Your task to perform on an android device: Open Chrome and go to settings Image 0: 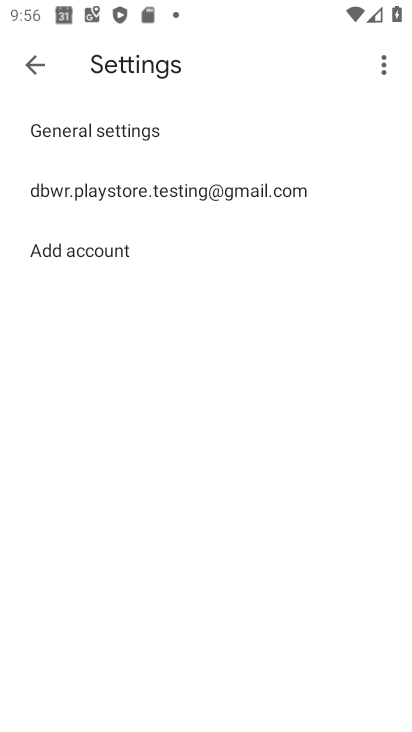
Step 0: press home button
Your task to perform on an android device: Open Chrome and go to settings Image 1: 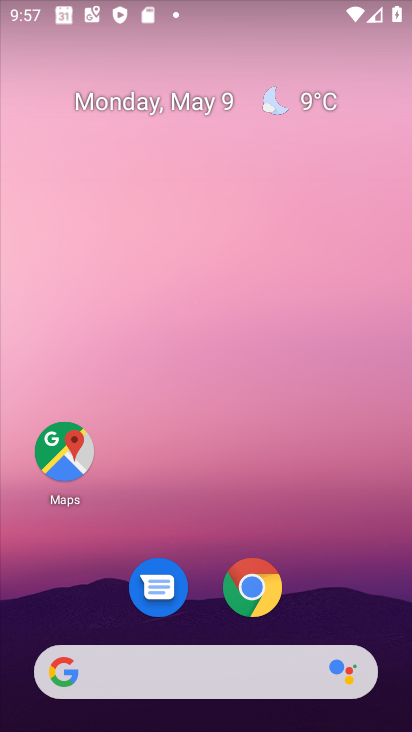
Step 1: drag from (340, 487) to (276, 29)
Your task to perform on an android device: Open Chrome and go to settings Image 2: 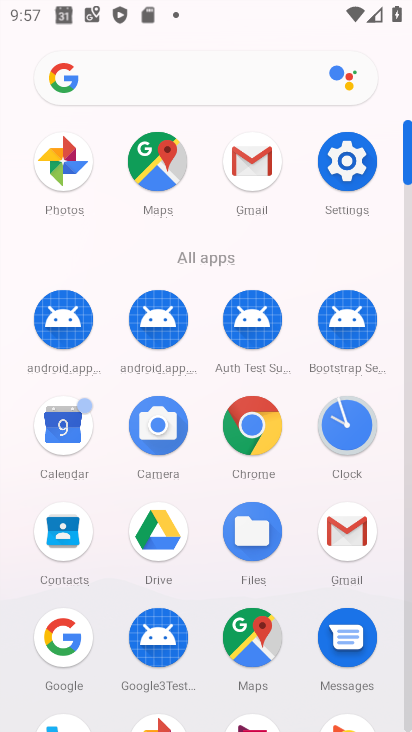
Step 2: click (254, 439)
Your task to perform on an android device: Open Chrome and go to settings Image 3: 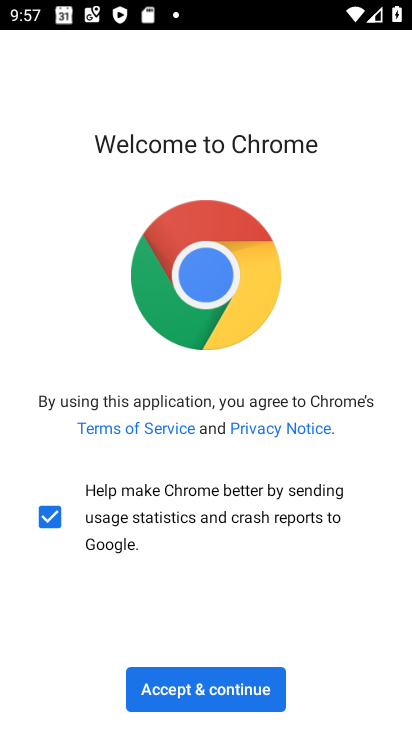
Step 3: click (188, 689)
Your task to perform on an android device: Open Chrome and go to settings Image 4: 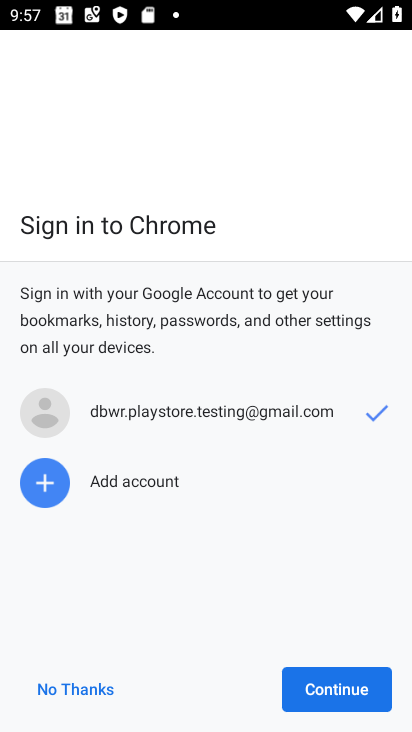
Step 4: click (90, 700)
Your task to perform on an android device: Open Chrome and go to settings Image 5: 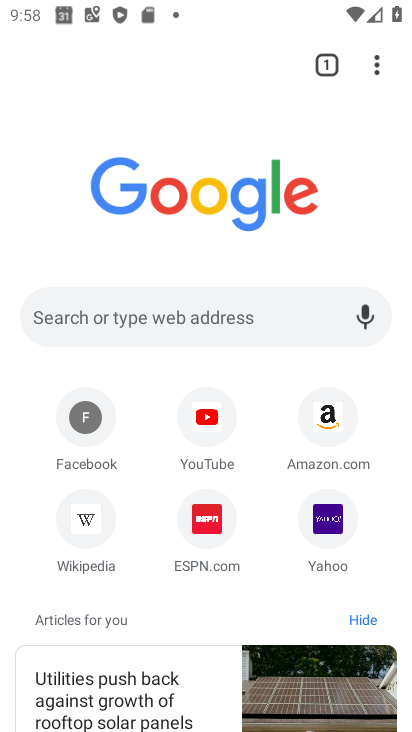
Step 5: task complete